Your task to perform on an android device: Open maps Image 0: 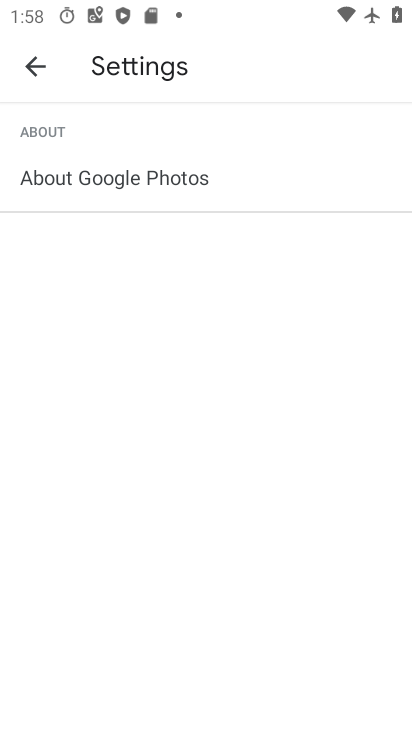
Step 0: press home button
Your task to perform on an android device: Open maps Image 1: 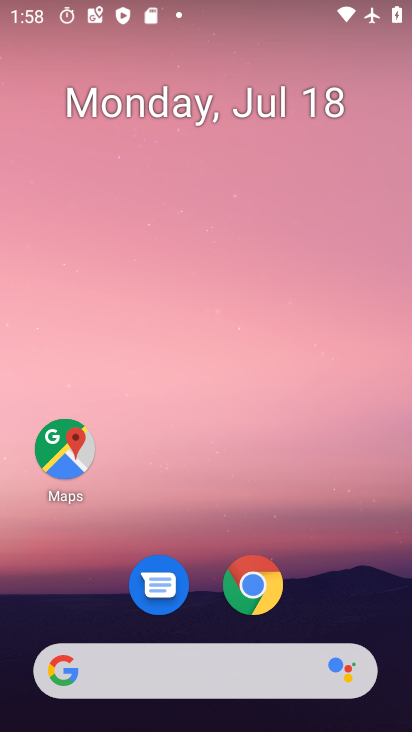
Step 1: click (62, 452)
Your task to perform on an android device: Open maps Image 2: 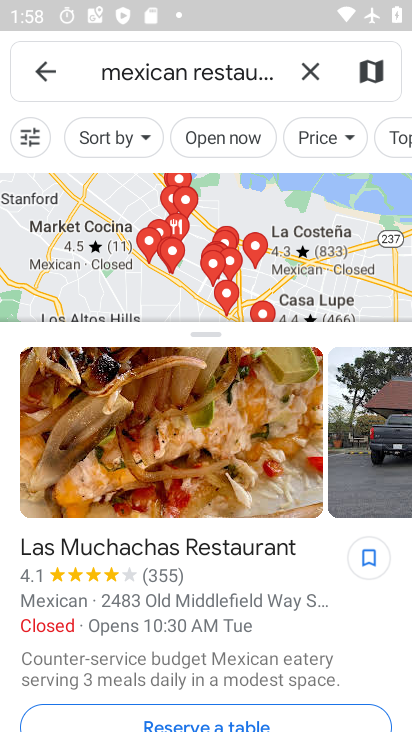
Step 2: click (49, 73)
Your task to perform on an android device: Open maps Image 3: 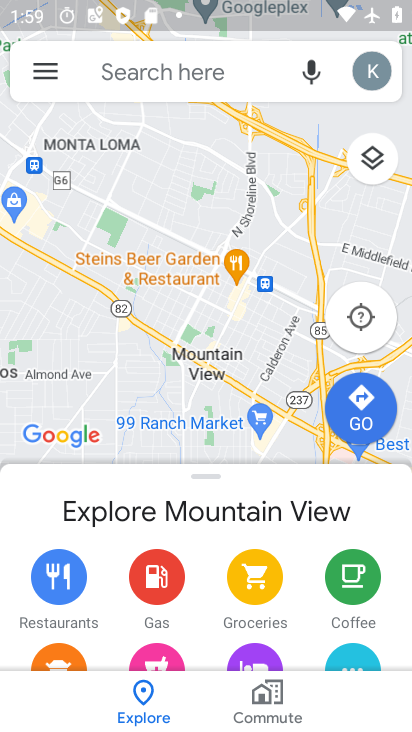
Step 3: task complete